Your task to perform on an android device: create a new album in the google photos Image 0: 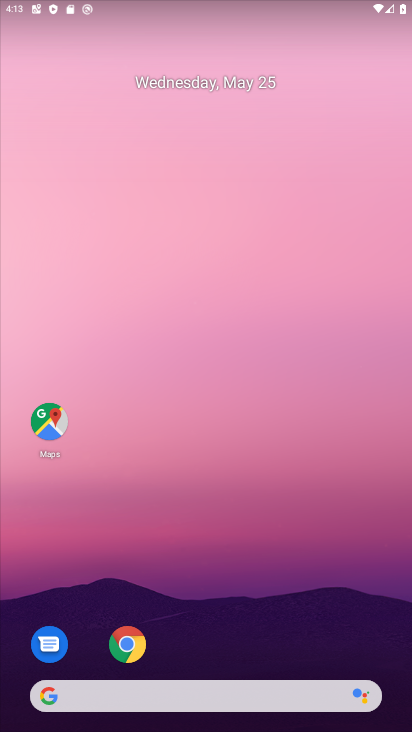
Step 0: drag from (286, 670) to (283, 2)
Your task to perform on an android device: create a new album in the google photos Image 1: 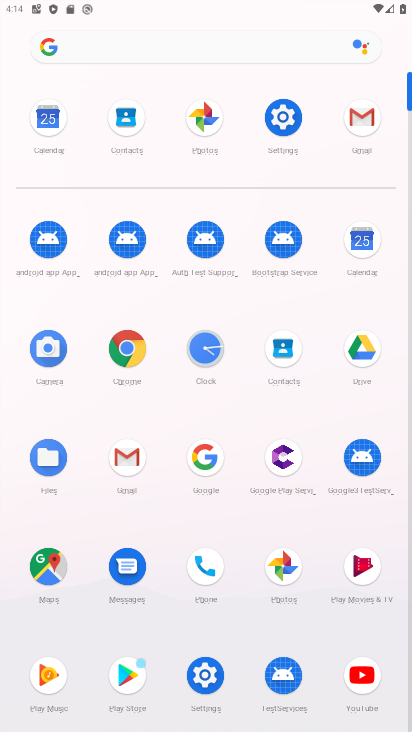
Step 1: click (288, 565)
Your task to perform on an android device: create a new album in the google photos Image 2: 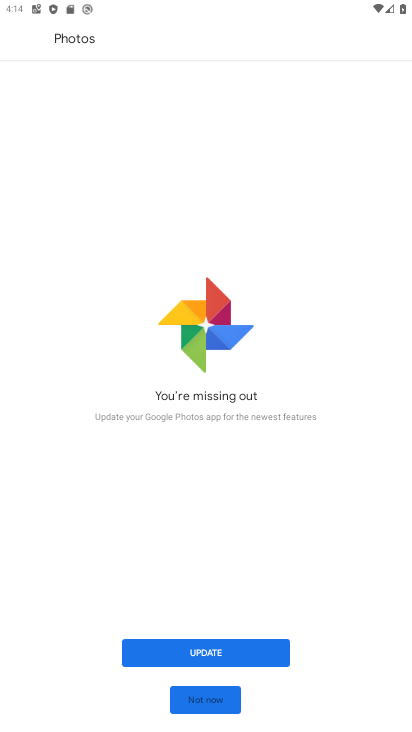
Step 2: click (207, 702)
Your task to perform on an android device: create a new album in the google photos Image 3: 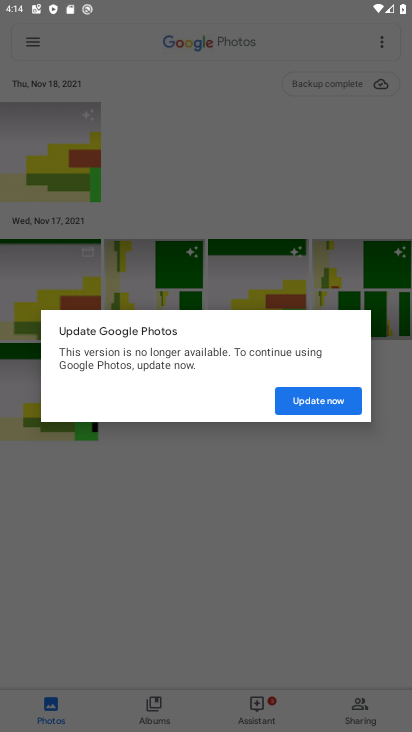
Step 3: click (297, 406)
Your task to perform on an android device: create a new album in the google photos Image 4: 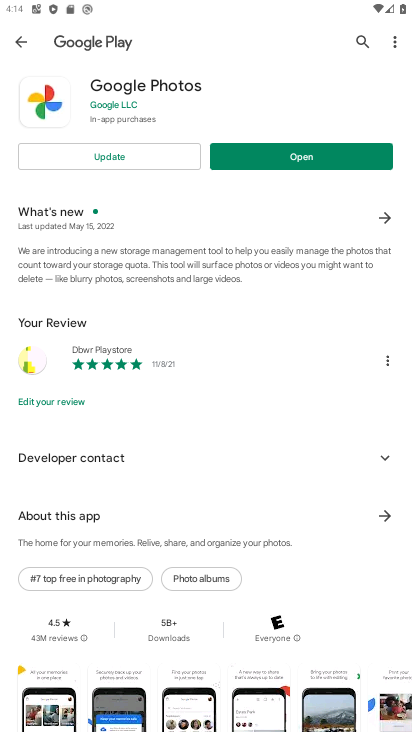
Step 4: click (289, 159)
Your task to perform on an android device: create a new album in the google photos Image 5: 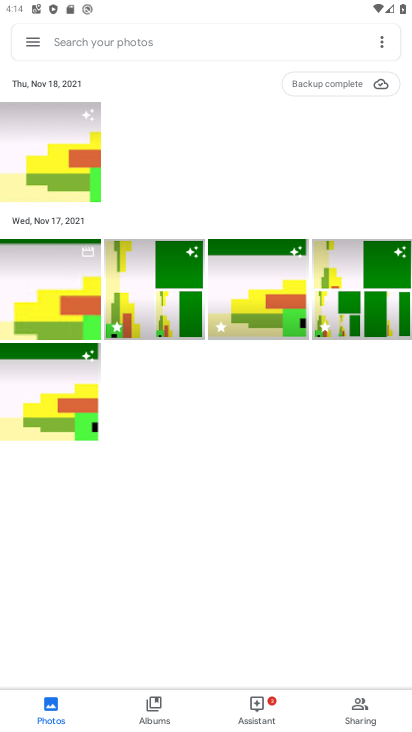
Step 5: click (151, 305)
Your task to perform on an android device: create a new album in the google photos Image 6: 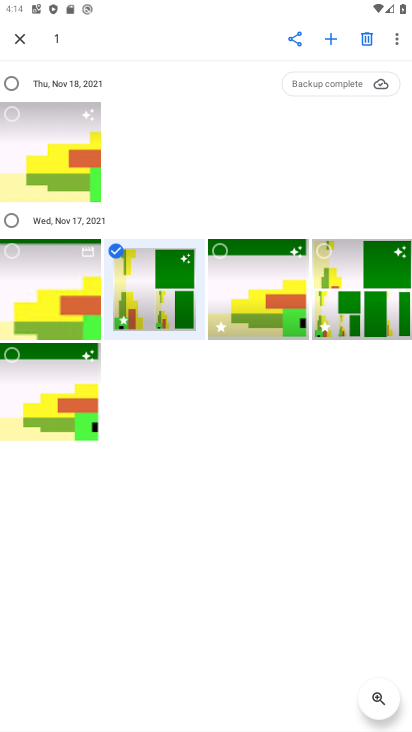
Step 6: click (233, 292)
Your task to perform on an android device: create a new album in the google photos Image 7: 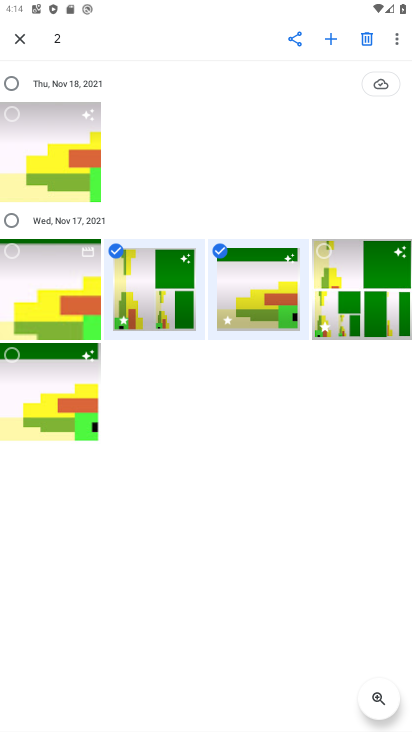
Step 7: click (330, 31)
Your task to perform on an android device: create a new album in the google photos Image 8: 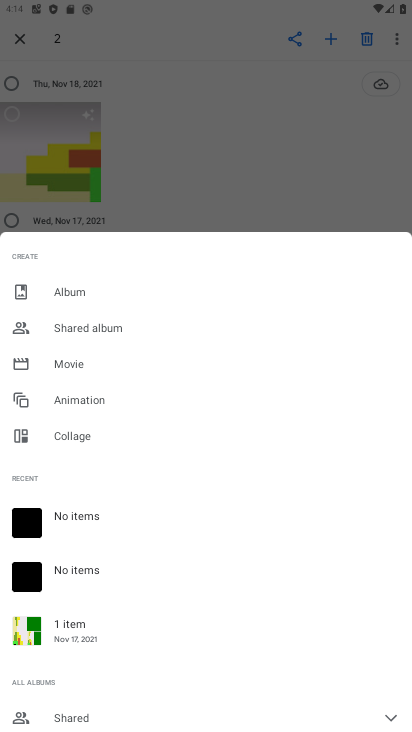
Step 8: click (68, 294)
Your task to perform on an android device: create a new album in the google photos Image 9: 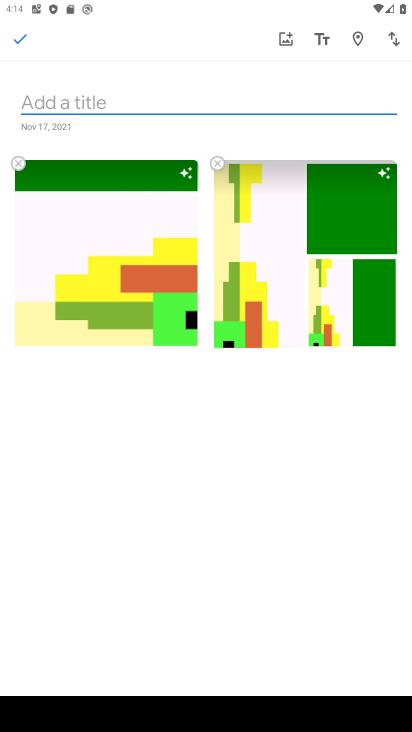
Step 9: click (50, 99)
Your task to perform on an android device: create a new album in the google photos Image 10: 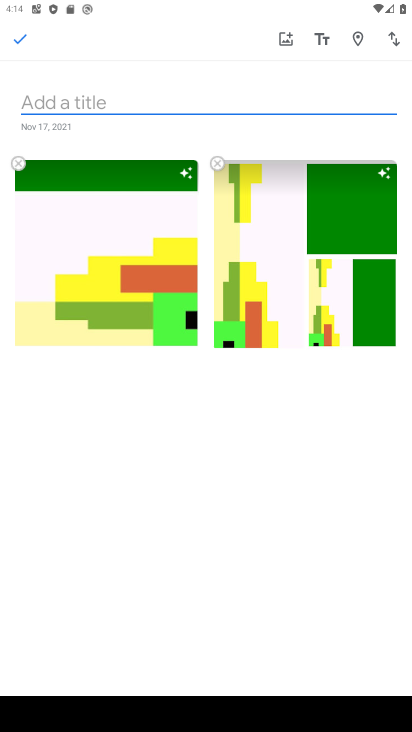
Step 10: type "new 2"
Your task to perform on an android device: create a new album in the google photos Image 11: 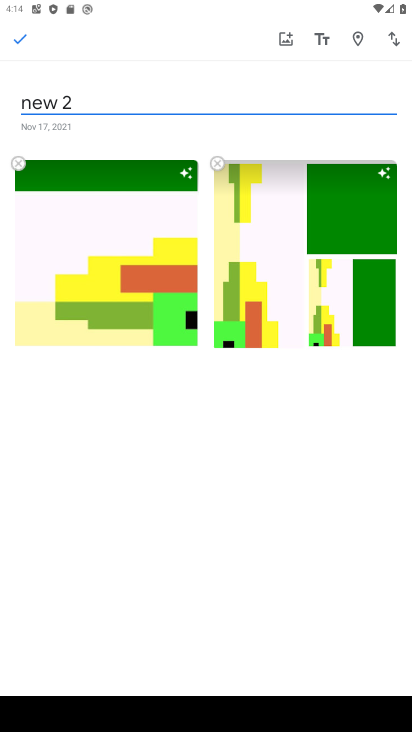
Step 11: click (19, 41)
Your task to perform on an android device: create a new album in the google photos Image 12: 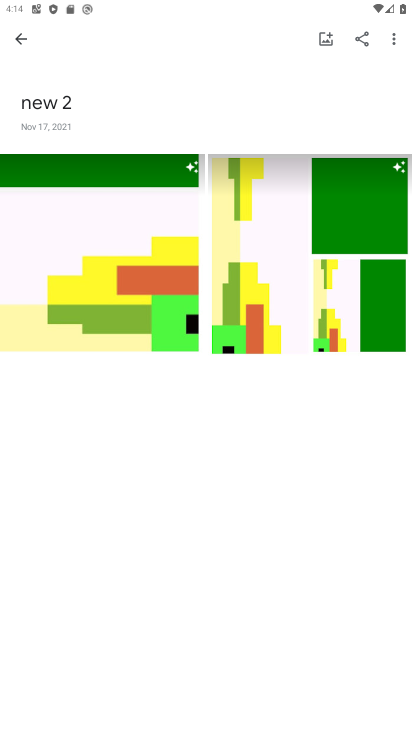
Step 12: task complete